Your task to perform on an android device: turn on wifi Image 0: 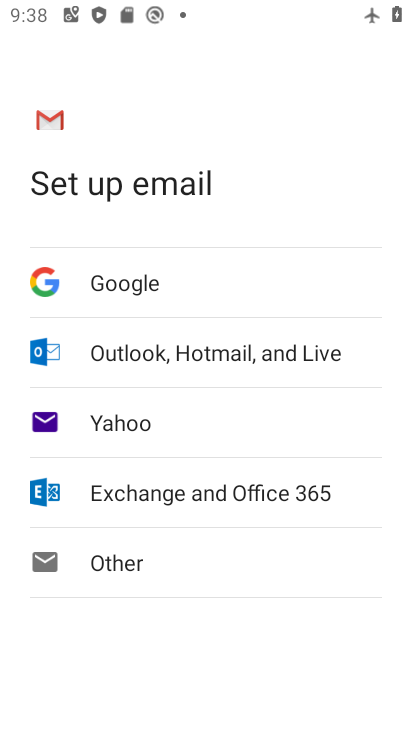
Step 0: press home button
Your task to perform on an android device: turn on wifi Image 1: 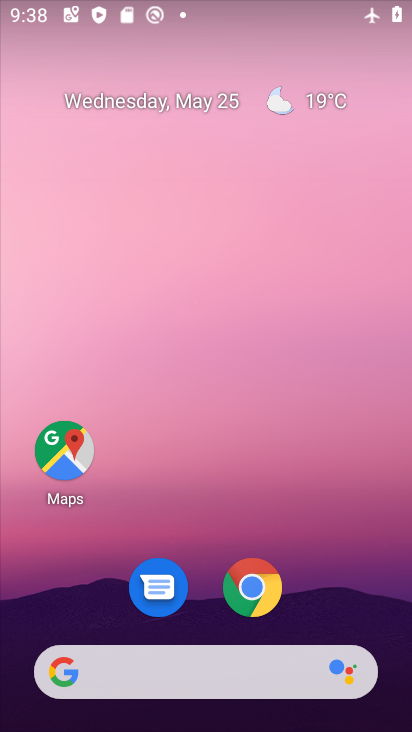
Step 1: drag from (375, 606) to (340, 110)
Your task to perform on an android device: turn on wifi Image 2: 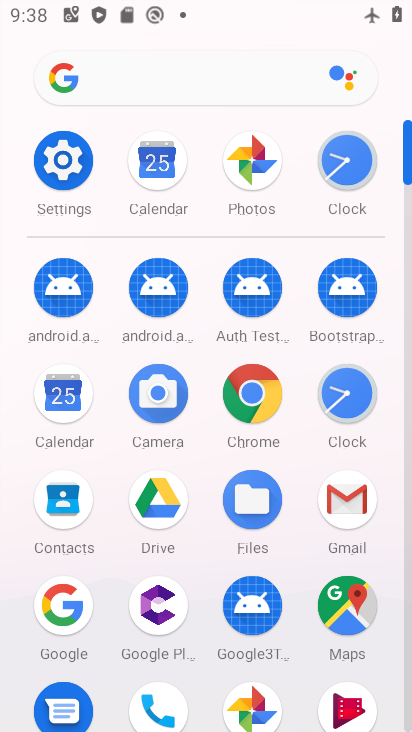
Step 2: click (406, 670)
Your task to perform on an android device: turn on wifi Image 3: 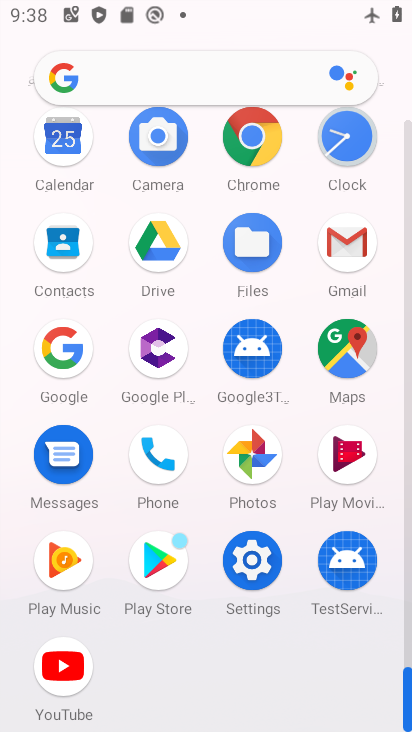
Step 3: click (255, 558)
Your task to perform on an android device: turn on wifi Image 4: 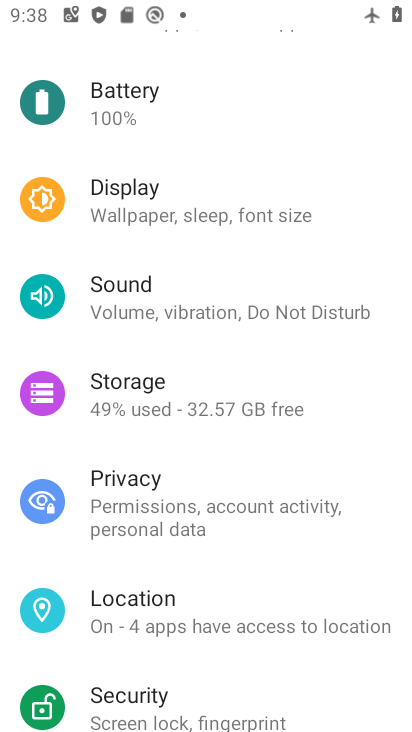
Step 4: drag from (303, 136) to (343, 500)
Your task to perform on an android device: turn on wifi Image 5: 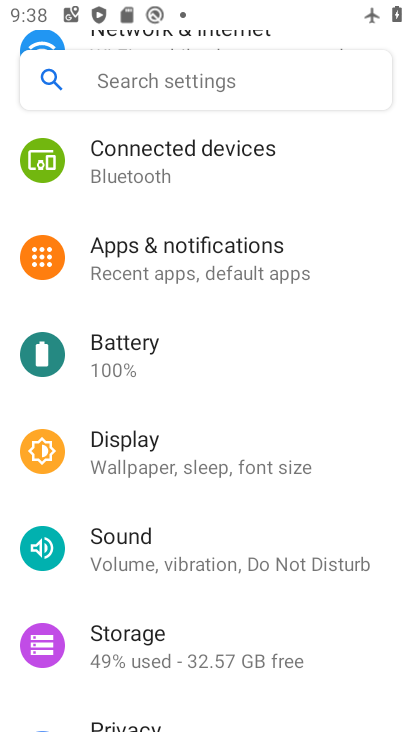
Step 5: drag from (330, 273) to (327, 606)
Your task to perform on an android device: turn on wifi Image 6: 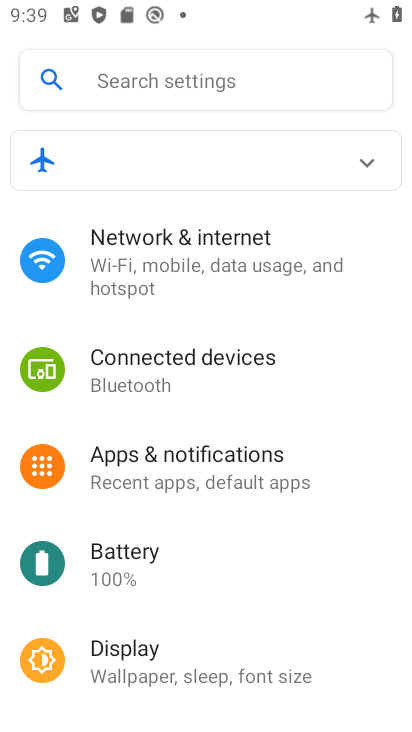
Step 6: click (122, 252)
Your task to perform on an android device: turn on wifi Image 7: 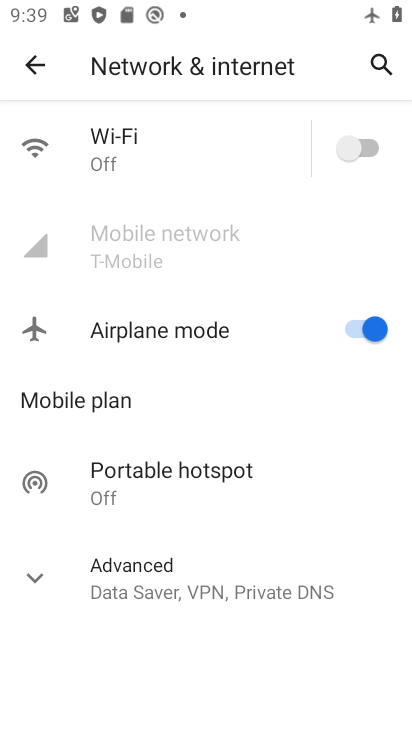
Step 7: click (374, 145)
Your task to perform on an android device: turn on wifi Image 8: 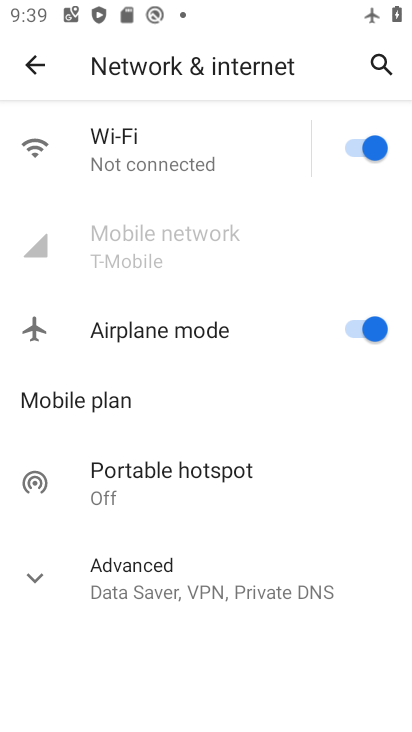
Step 8: task complete